Your task to perform on an android device: toggle data saver in the chrome app Image 0: 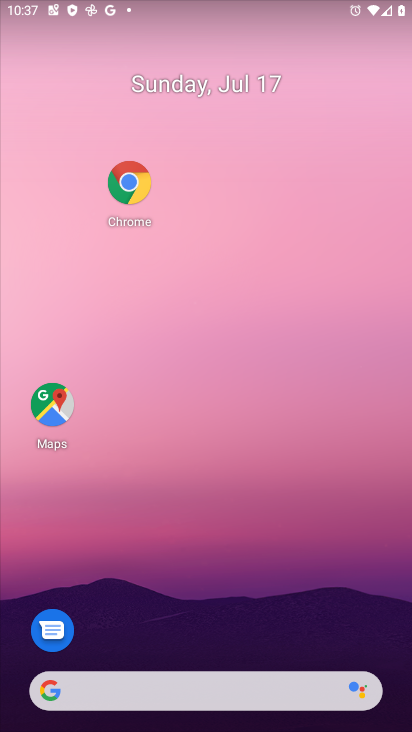
Step 0: click (125, 179)
Your task to perform on an android device: toggle data saver in the chrome app Image 1: 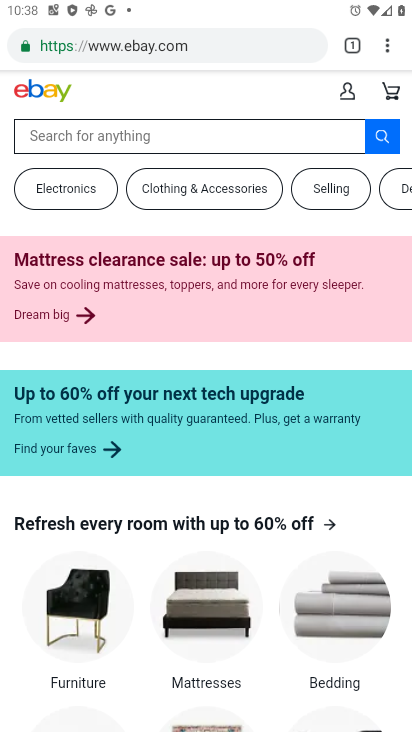
Step 1: click (389, 53)
Your task to perform on an android device: toggle data saver in the chrome app Image 2: 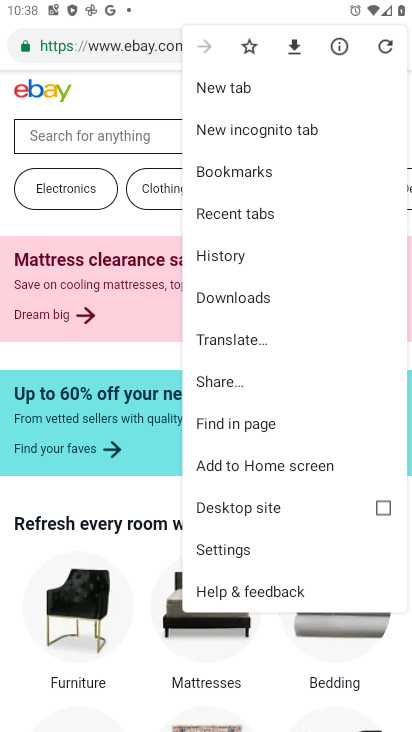
Step 2: click (225, 548)
Your task to perform on an android device: toggle data saver in the chrome app Image 3: 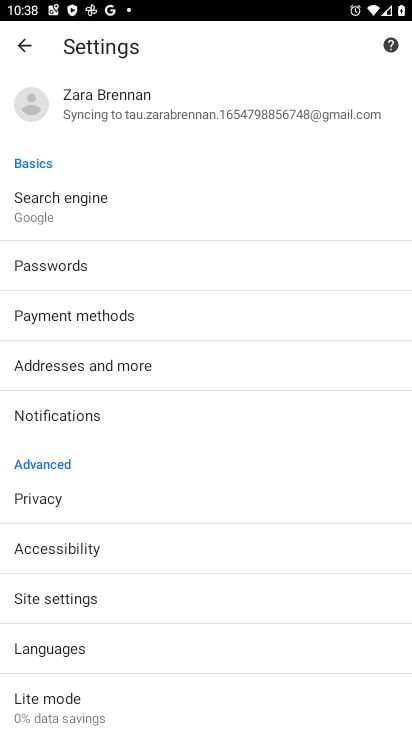
Step 3: drag from (97, 570) to (129, 398)
Your task to perform on an android device: toggle data saver in the chrome app Image 4: 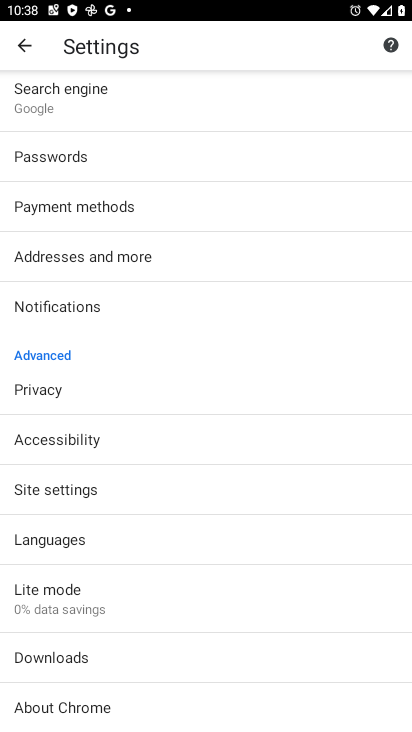
Step 4: click (47, 612)
Your task to perform on an android device: toggle data saver in the chrome app Image 5: 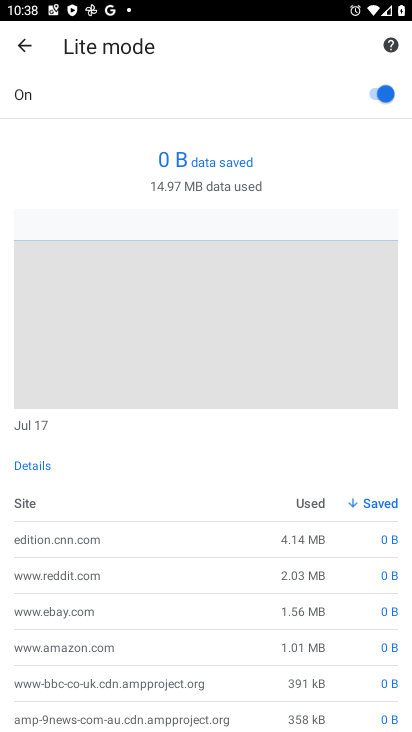
Step 5: click (373, 89)
Your task to perform on an android device: toggle data saver in the chrome app Image 6: 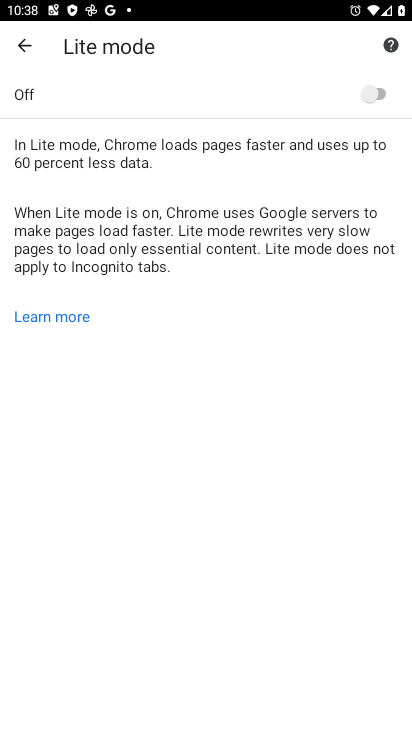
Step 6: task complete